Your task to perform on an android device: Open maps Image 0: 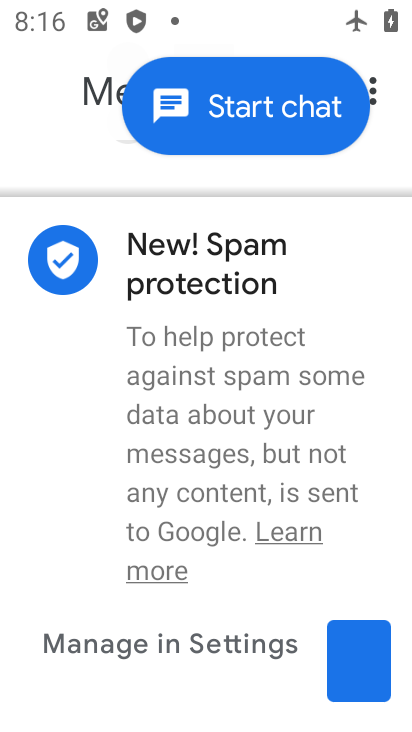
Step 0: press home button
Your task to perform on an android device: Open maps Image 1: 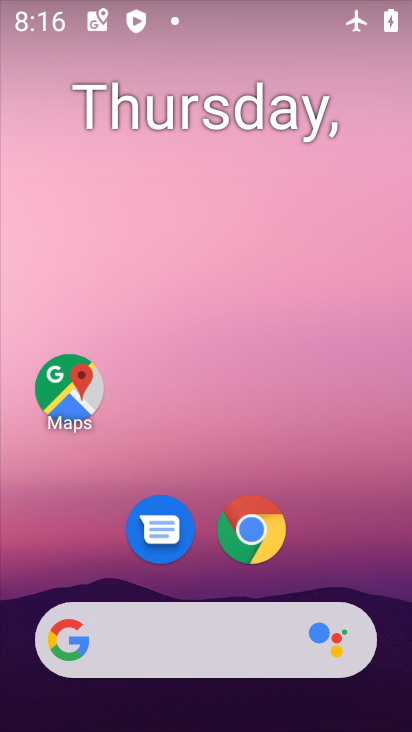
Step 1: drag from (184, 640) to (291, 62)
Your task to perform on an android device: Open maps Image 2: 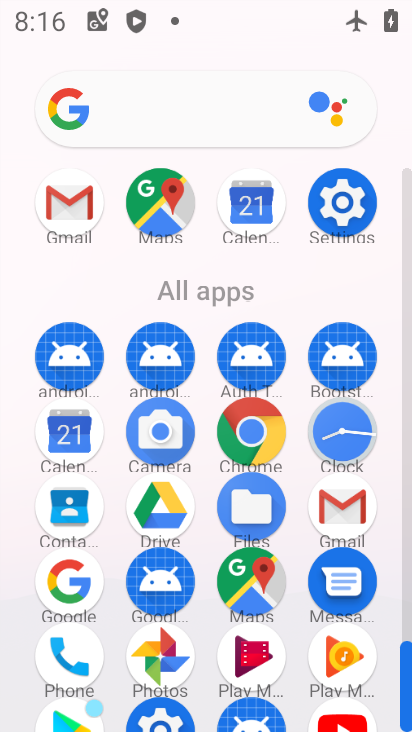
Step 2: click (157, 222)
Your task to perform on an android device: Open maps Image 3: 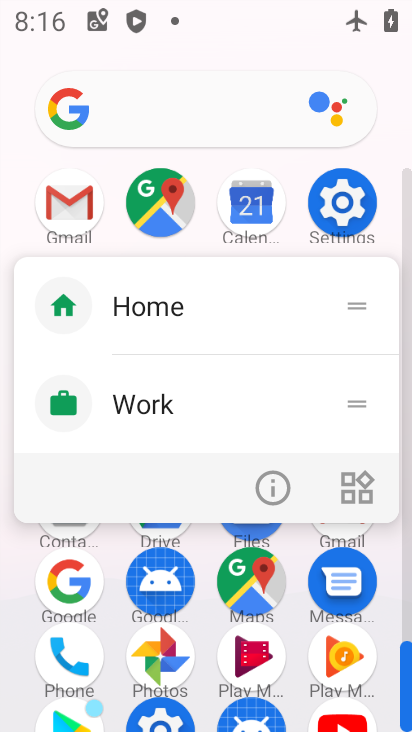
Step 3: click (164, 215)
Your task to perform on an android device: Open maps Image 4: 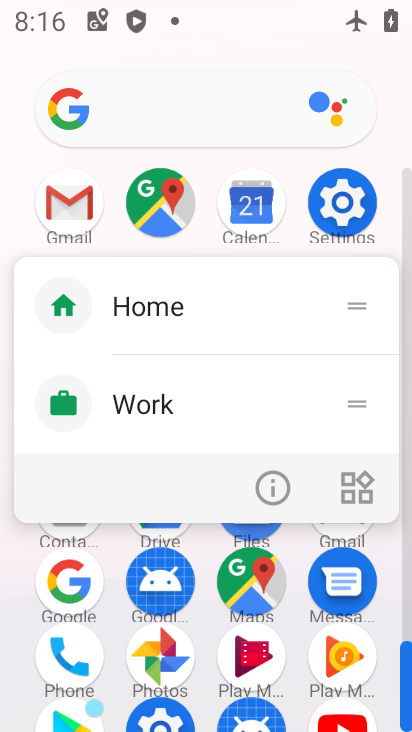
Step 4: click (153, 204)
Your task to perform on an android device: Open maps Image 5: 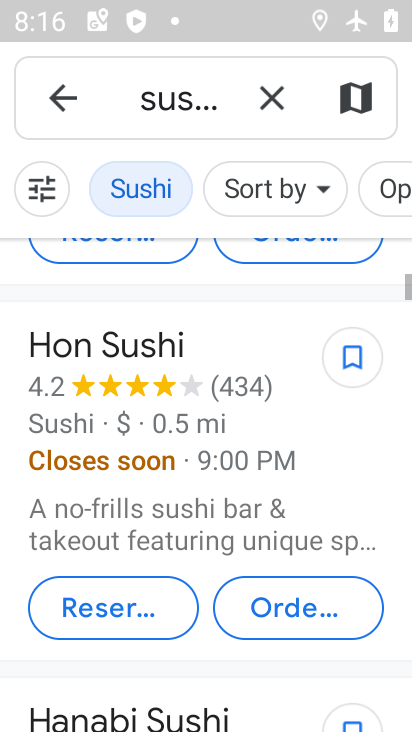
Step 5: click (57, 88)
Your task to perform on an android device: Open maps Image 6: 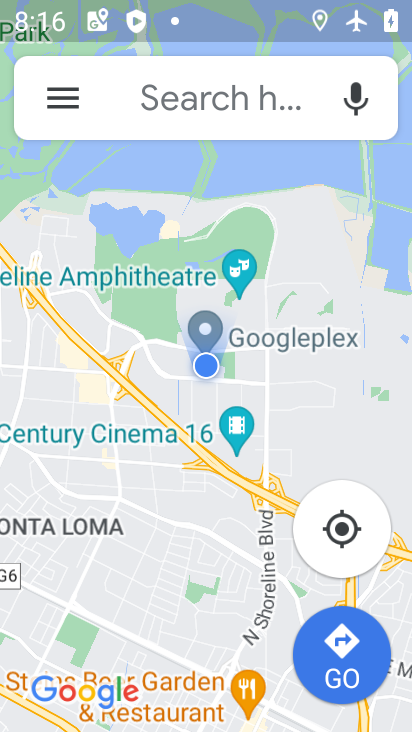
Step 6: task complete